Your task to perform on an android device: Open settings on Google Maps Image 0: 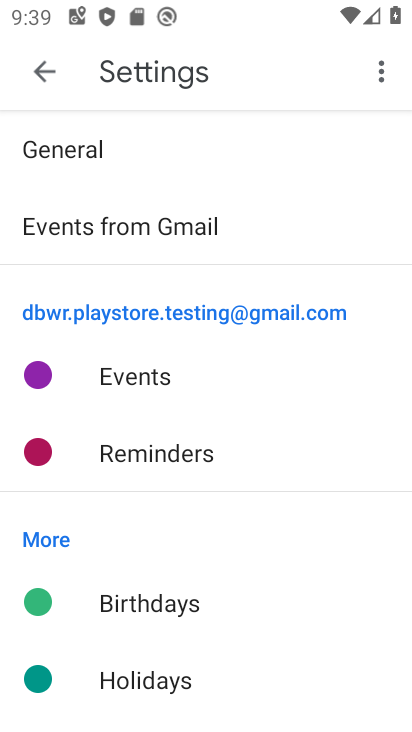
Step 0: press home button
Your task to perform on an android device: Open settings on Google Maps Image 1: 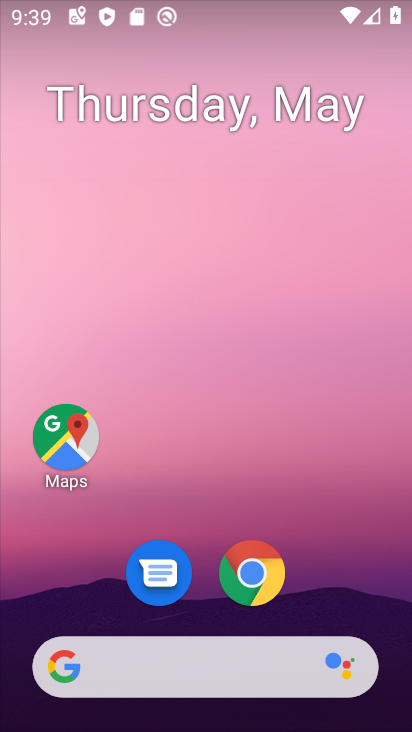
Step 1: click (57, 444)
Your task to perform on an android device: Open settings on Google Maps Image 2: 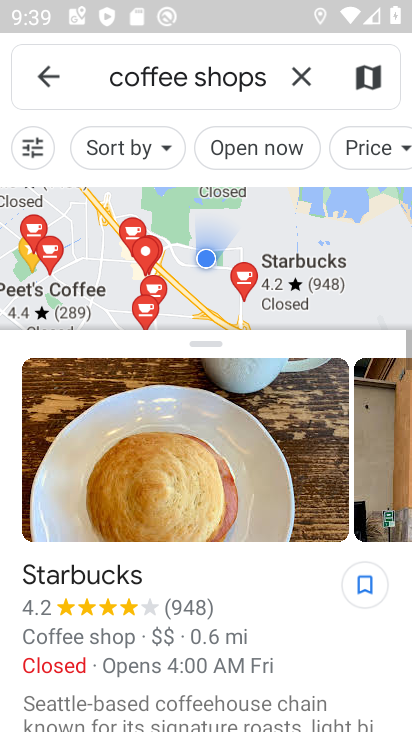
Step 2: click (305, 70)
Your task to perform on an android device: Open settings on Google Maps Image 3: 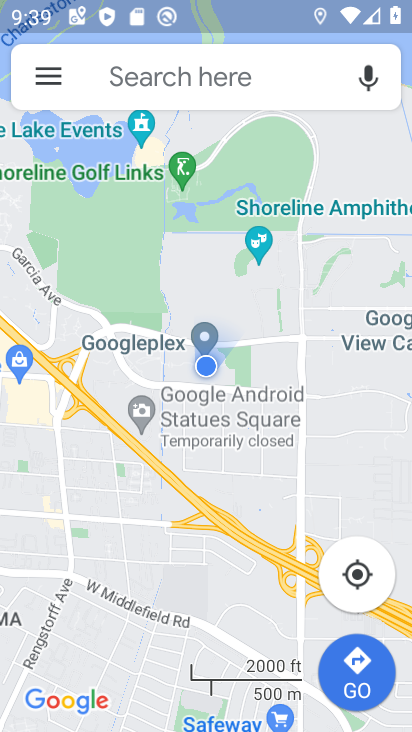
Step 3: click (38, 81)
Your task to perform on an android device: Open settings on Google Maps Image 4: 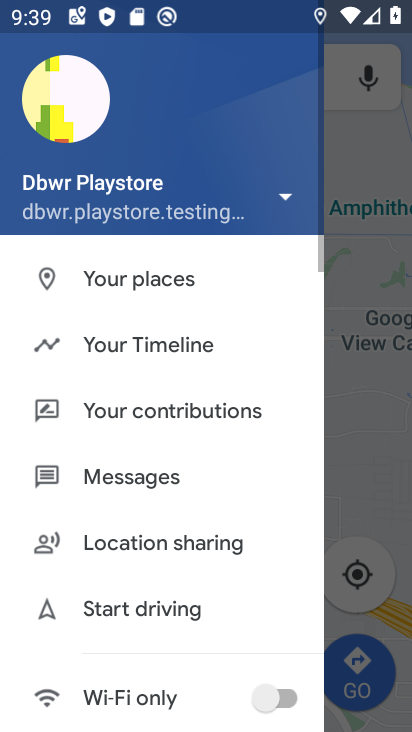
Step 4: drag from (132, 566) to (158, 288)
Your task to perform on an android device: Open settings on Google Maps Image 5: 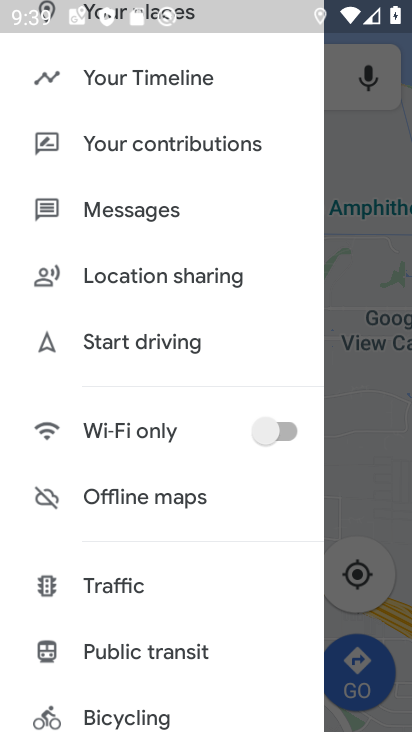
Step 5: drag from (157, 599) to (164, 362)
Your task to perform on an android device: Open settings on Google Maps Image 6: 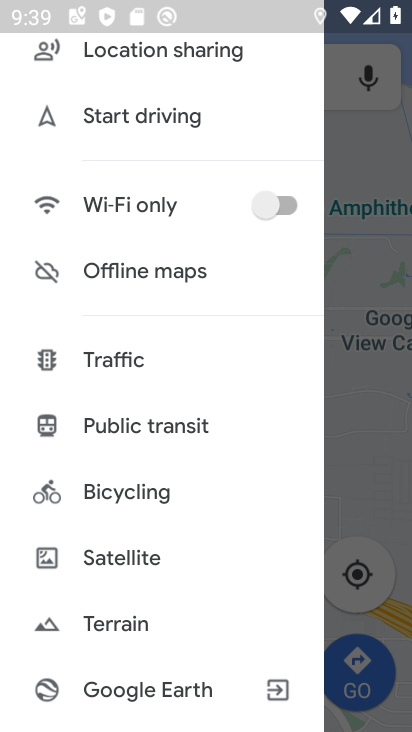
Step 6: drag from (137, 670) to (137, 403)
Your task to perform on an android device: Open settings on Google Maps Image 7: 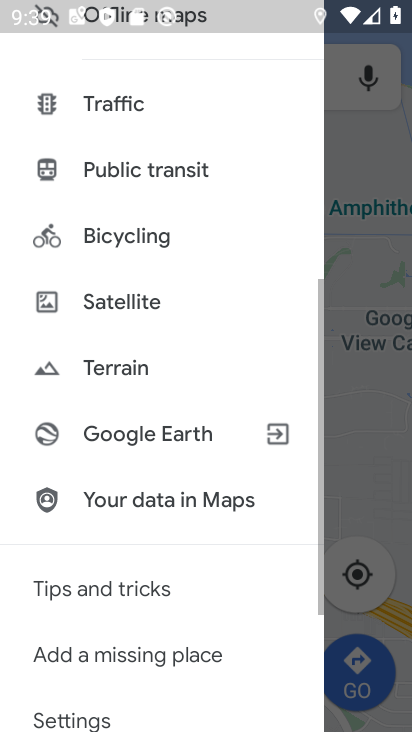
Step 7: drag from (144, 579) to (158, 218)
Your task to perform on an android device: Open settings on Google Maps Image 8: 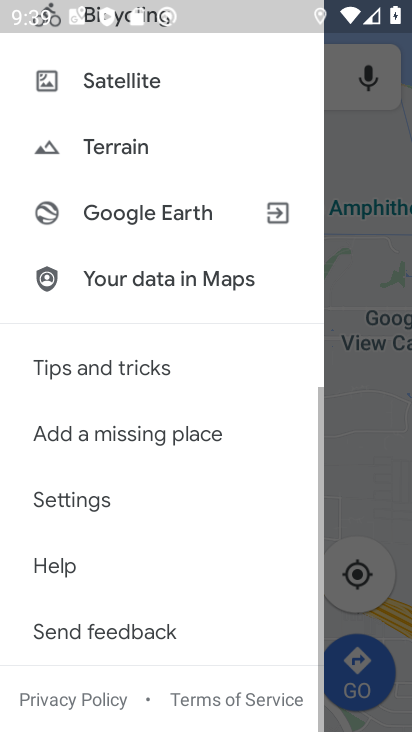
Step 8: click (61, 495)
Your task to perform on an android device: Open settings on Google Maps Image 9: 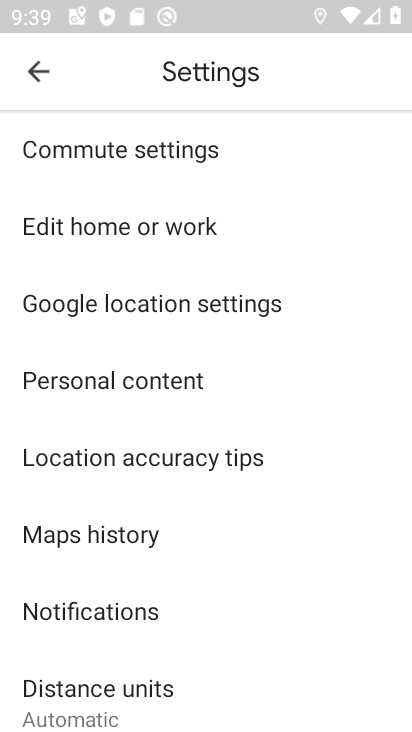
Step 9: task complete